Your task to perform on an android device: toggle priority inbox in the gmail app Image 0: 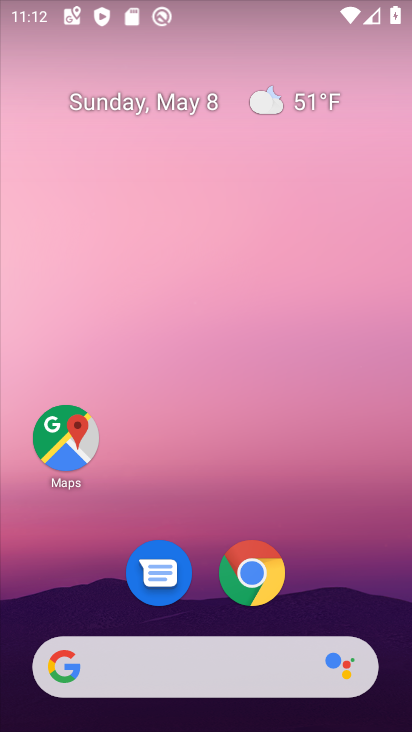
Step 0: drag from (206, 643) to (205, 264)
Your task to perform on an android device: toggle priority inbox in the gmail app Image 1: 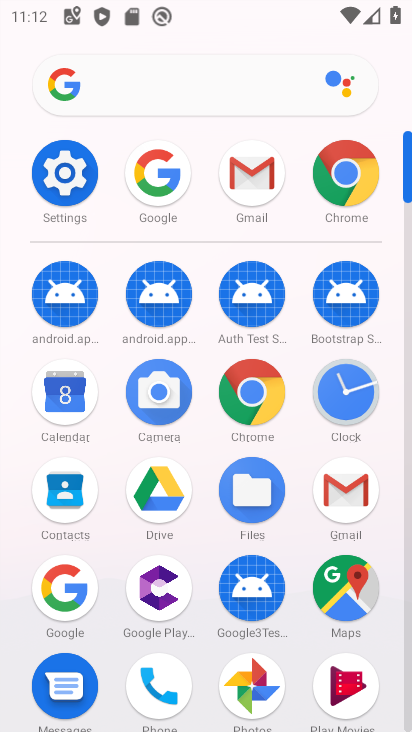
Step 1: click (263, 167)
Your task to perform on an android device: toggle priority inbox in the gmail app Image 2: 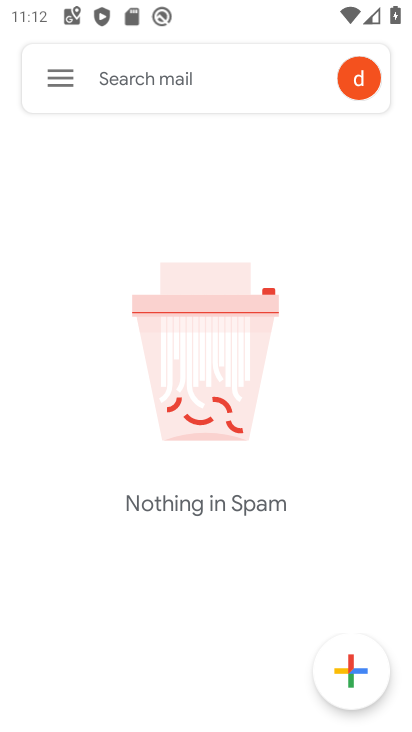
Step 2: click (61, 79)
Your task to perform on an android device: toggle priority inbox in the gmail app Image 3: 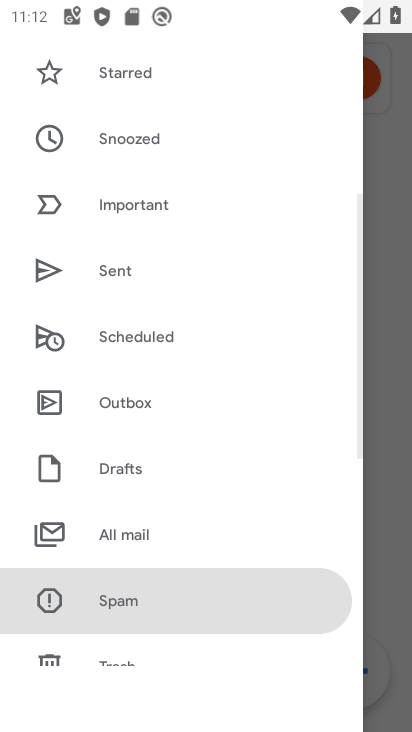
Step 3: drag from (123, 135) to (134, 524)
Your task to perform on an android device: toggle priority inbox in the gmail app Image 4: 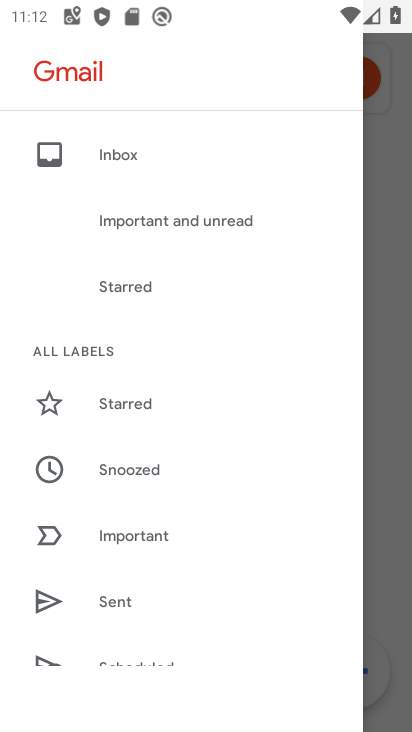
Step 4: drag from (202, 640) to (213, 247)
Your task to perform on an android device: toggle priority inbox in the gmail app Image 5: 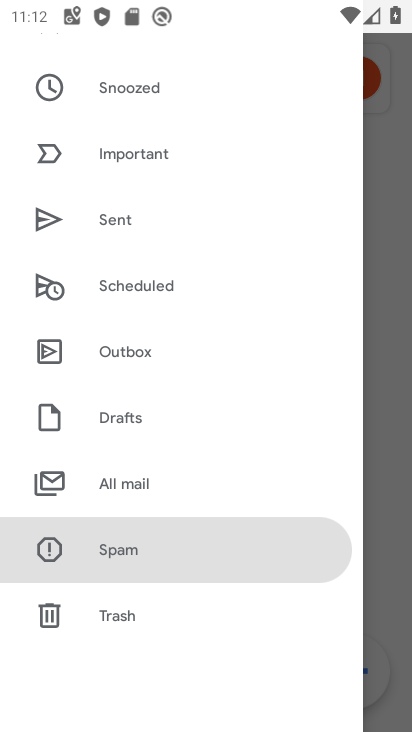
Step 5: drag from (162, 588) to (162, 398)
Your task to perform on an android device: toggle priority inbox in the gmail app Image 6: 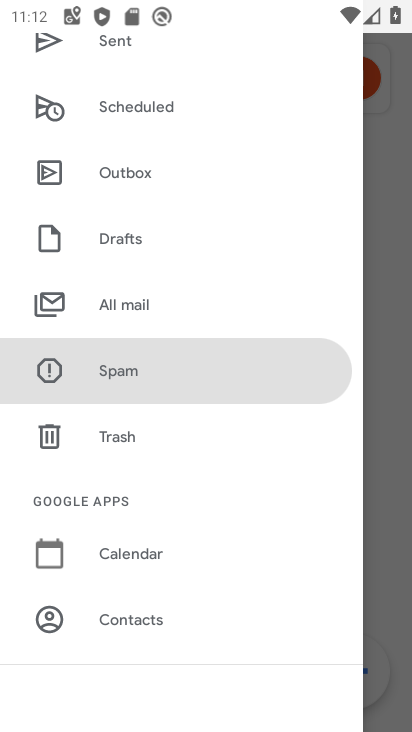
Step 6: drag from (165, 605) to (209, 293)
Your task to perform on an android device: toggle priority inbox in the gmail app Image 7: 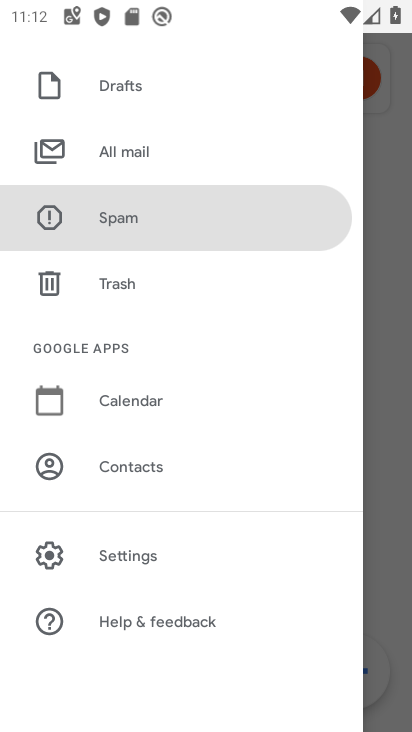
Step 7: click (119, 562)
Your task to perform on an android device: toggle priority inbox in the gmail app Image 8: 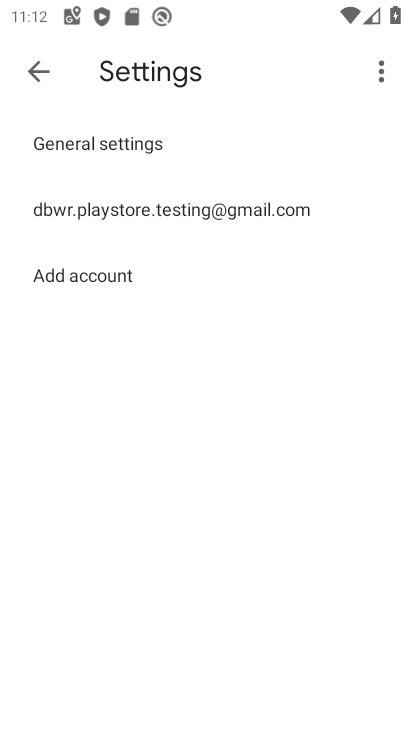
Step 8: click (69, 218)
Your task to perform on an android device: toggle priority inbox in the gmail app Image 9: 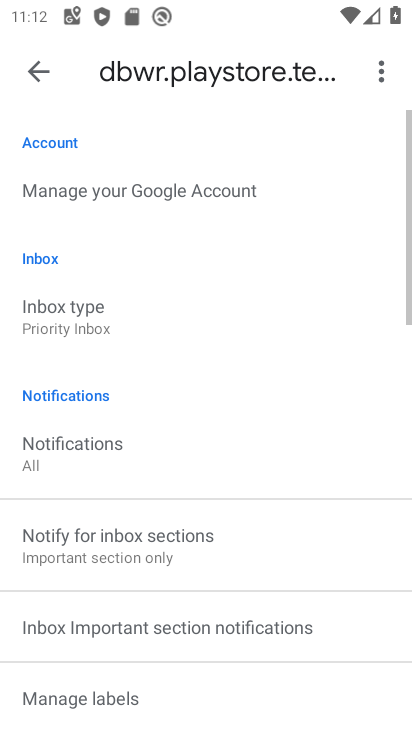
Step 9: click (60, 317)
Your task to perform on an android device: toggle priority inbox in the gmail app Image 10: 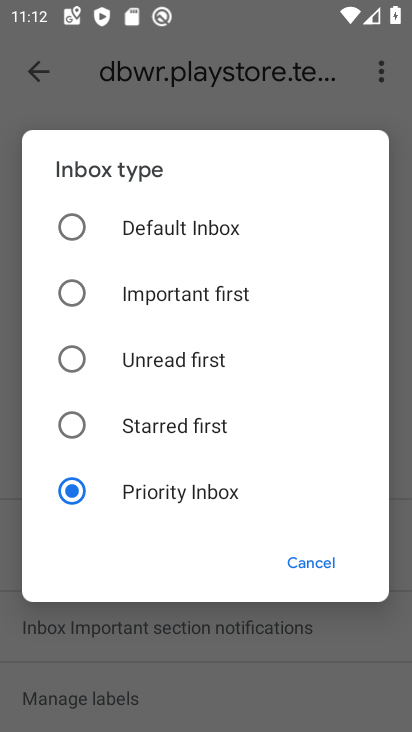
Step 10: click (70, 357)
Your task to perform on an android device: toggle priority inbox in the gmail app Image 11: 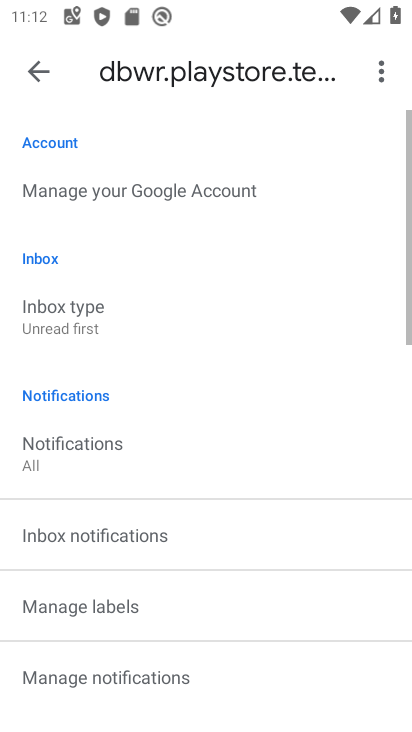
Step 11: task complete